Your task to perform on an android device: Open ESPN.com Image 0: 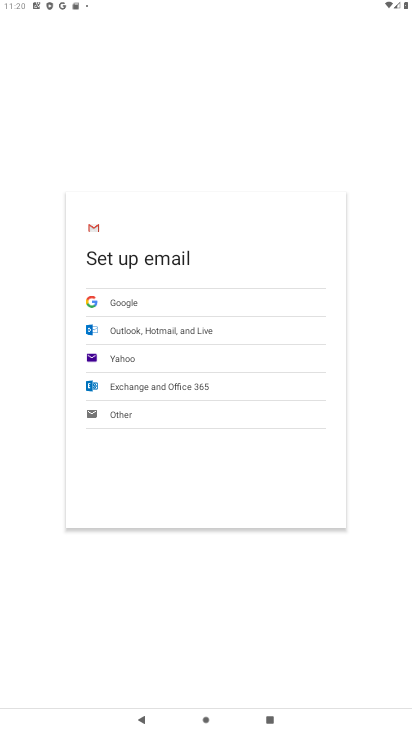
Step 0: press home button
Your task to perform on an android device: Open ESPN.com Image 1: 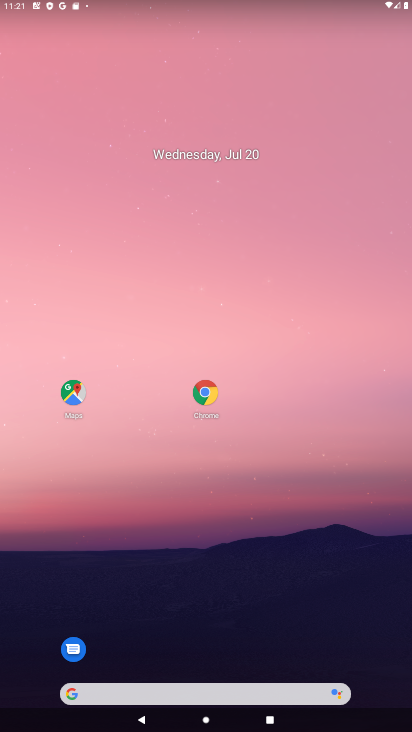
Step 1: click (205, 385)
Your task to perform on an android device: Open ESPN.com Image 2: 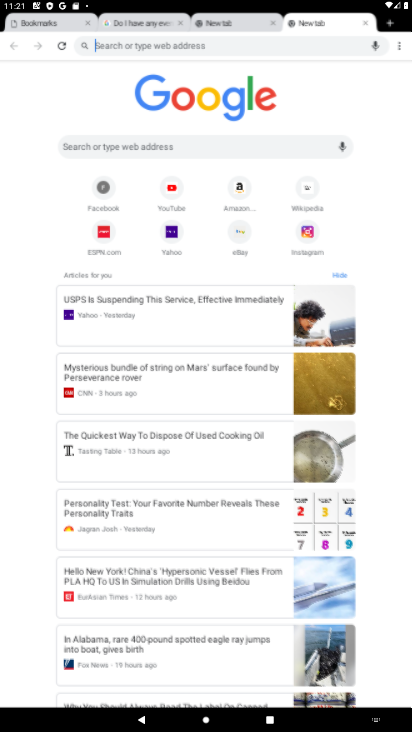
Step 2: click (98, 241)
Your task to perform on an android device: Open ESPN.com Image 3: 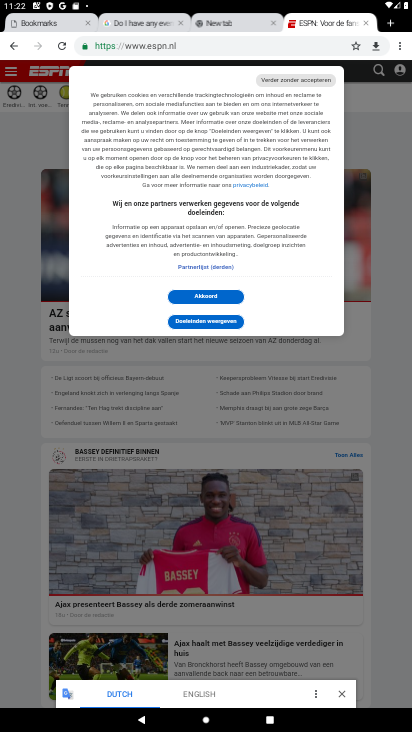
Step 3: task complete